Your task to perform on an android device: Go to internet settings Image 0: 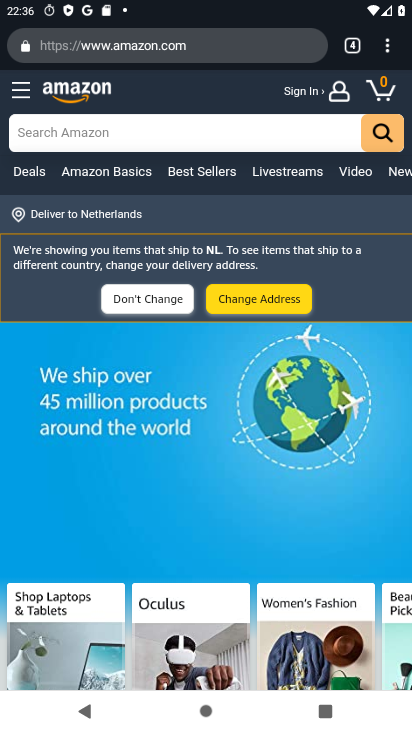
Step 0: press home button
Your task to perform on an android device: Go to internet settings Image 1: 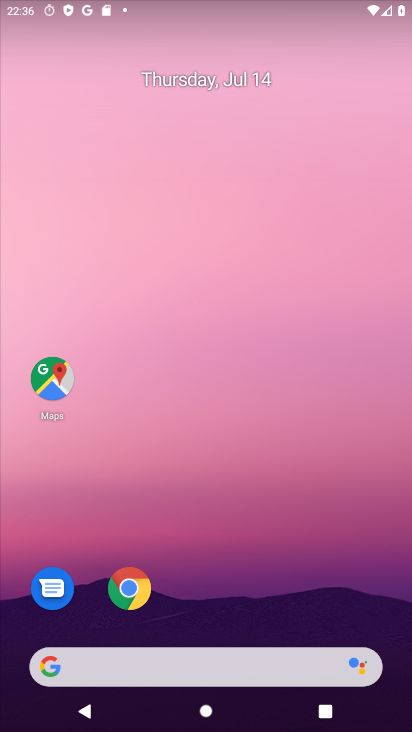
Step 1: drag from (201, 610) to (226, 95)
Your task to perform on an android device: Go to internet settings Image 2: 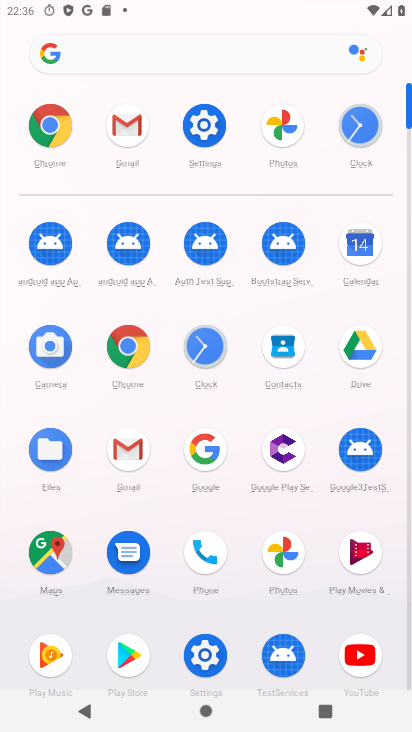
Step 2: click (205, 123)
Your task to perform on an android device: Go to internet settings Image 3: 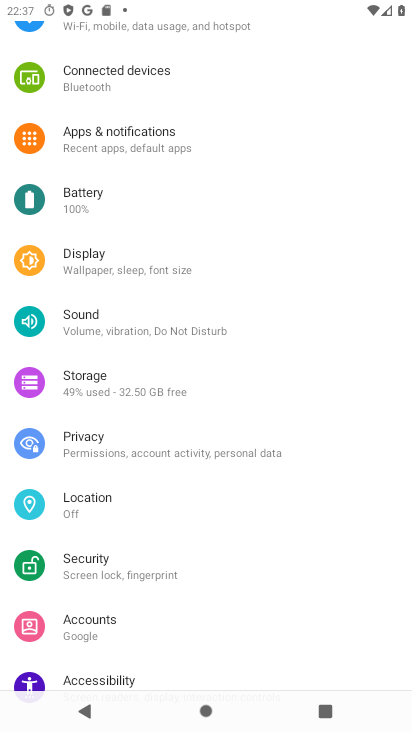
Step 3: drag from (175, 74) to (253, 462)
Your task to perform on an android device: Go to internet settings Image 4: 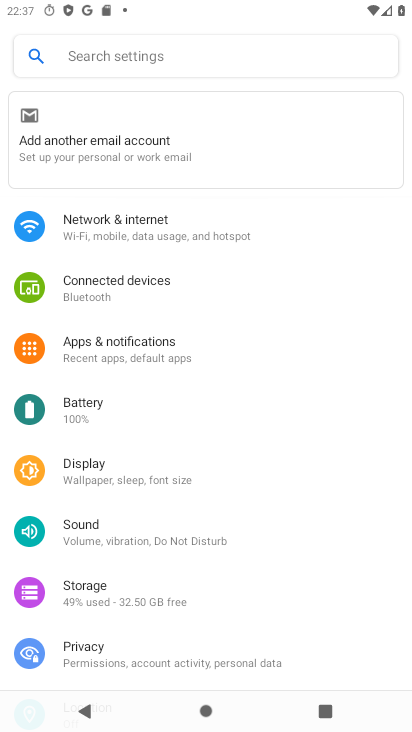
Step 4: click (146, 224)
Your task to perform on an android device: Go to internet settings Image 5: 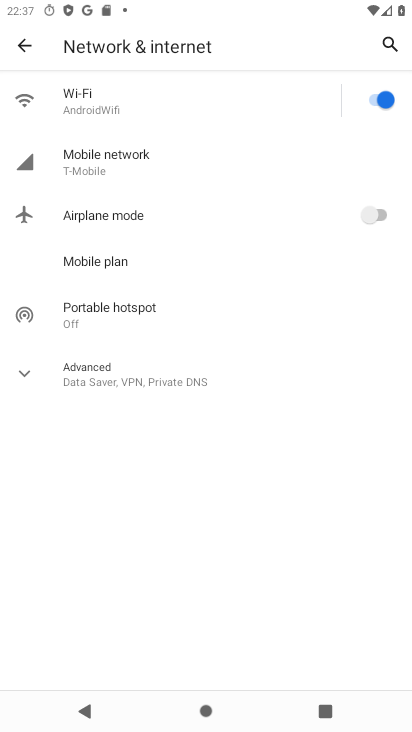
Step 5: click (165, 93)
Your task to perform on an android device: Go to internet settings Image 6: 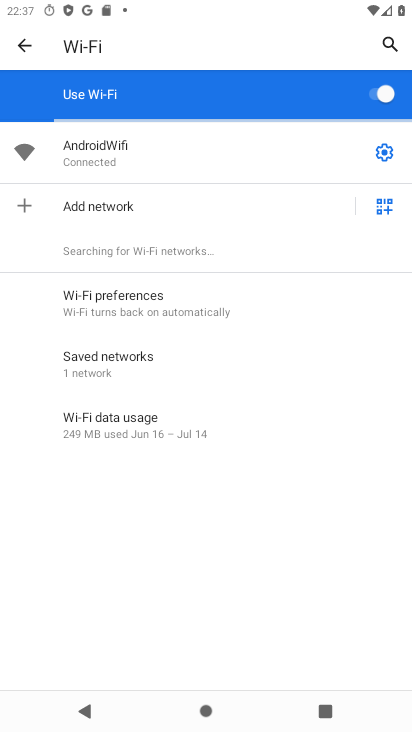
Step 6: click (261, 155)
Your task to perform on an android device: Go to internet settings Image 7: 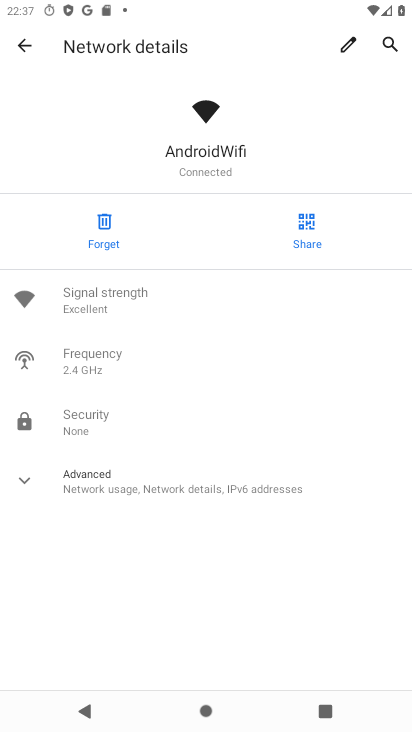
Step 7: task complete